Your task to perform on an android device: Go to location settings Image 0: 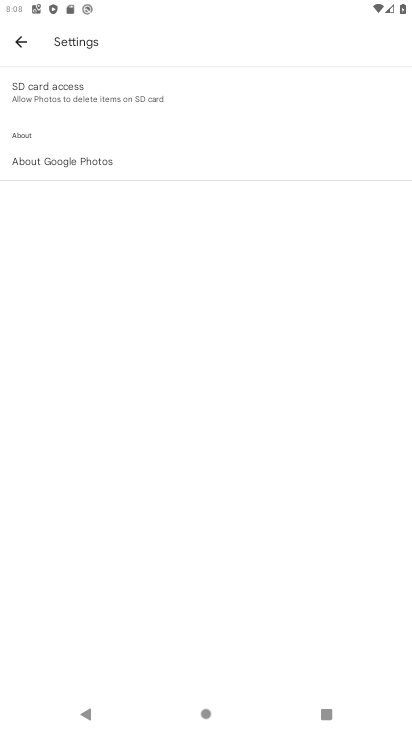
Step 0: press home button
Your task to perform on an android device: Go to location settings Image 1: 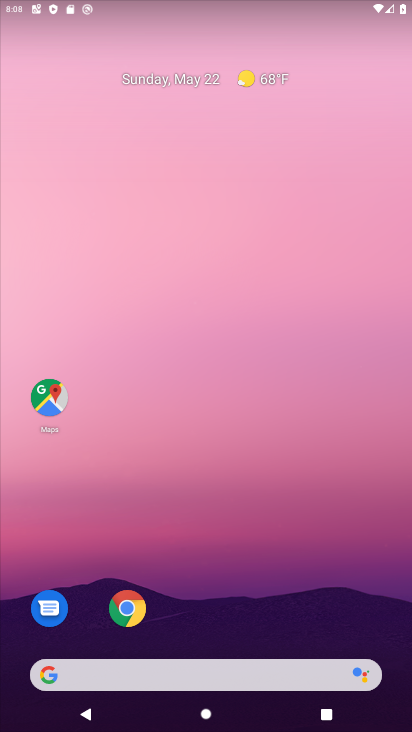
Step 1: drag from (188, 726) to (175, 3)
Your task to perform on an android device: Go to location settings Image 2: 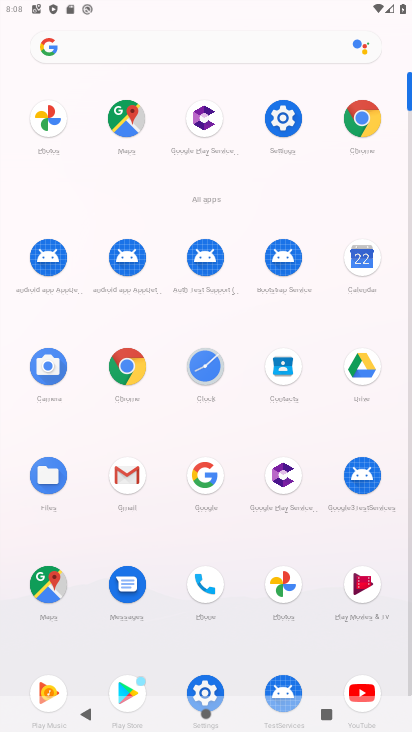
Step 2: click (282, 116)
Your task to perform on an android device: Go to location settings Image 3: 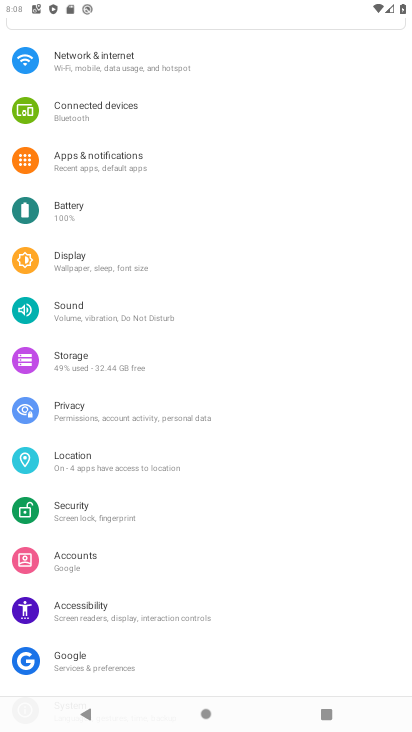
Step 3: drag from (165, 128) to (170, 380)
Your task to perform on an android device: Go to location settings Image 4: 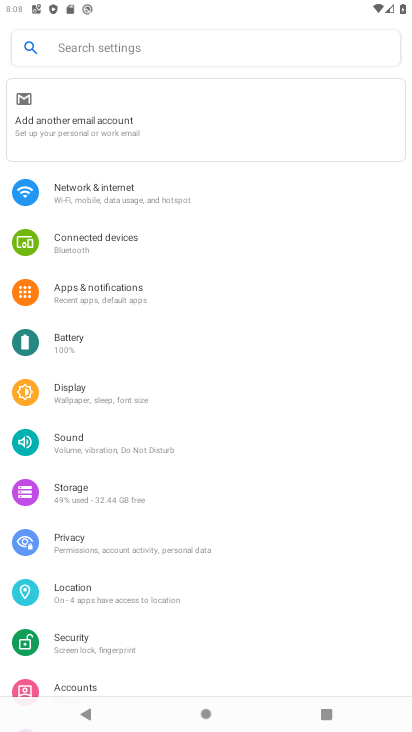
Step 4: drag from (148, 558) to (192, 136)
Your task to perform on an android device: Go to location settings Image 5: 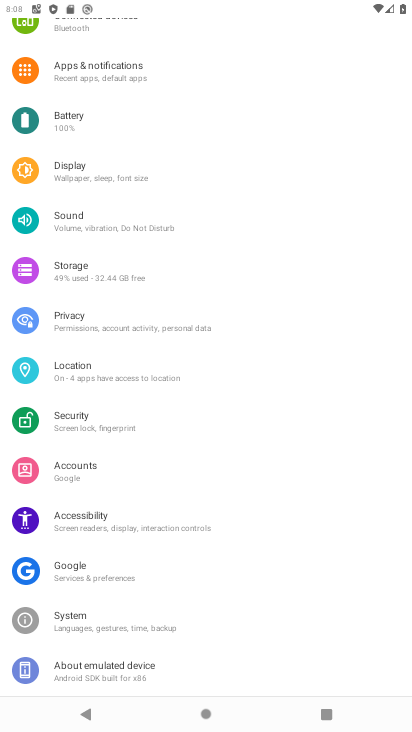
Step 5: click (81, 369)
Your task to perform on an android device: Go to location settings Image 6: 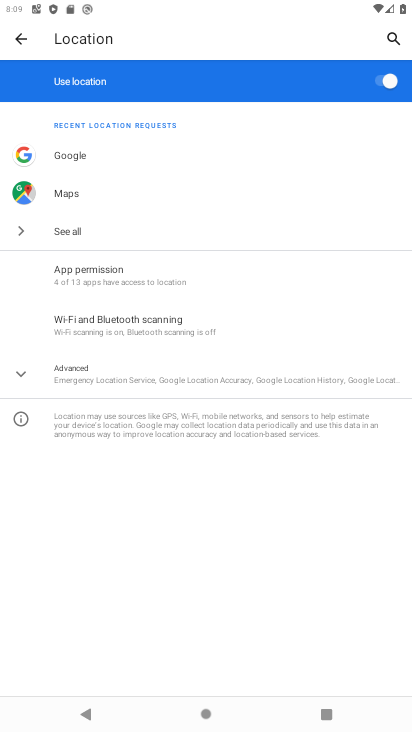
Step 6: task complete